Your task to perform on an android device: open wifi settings Image 0: 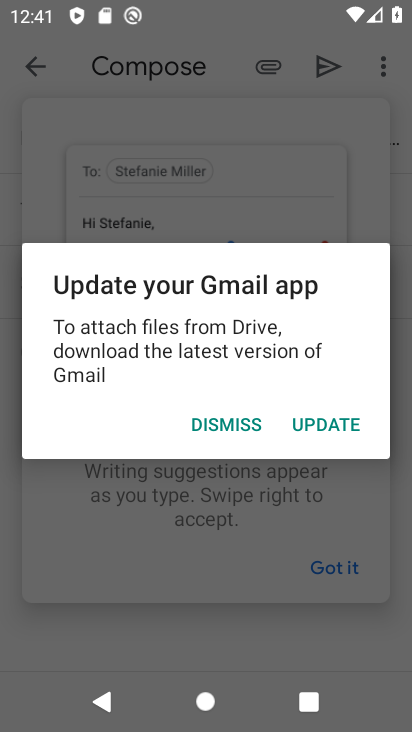
Step 0: press home button
Your task to perform on an android device: open wifi settings Image 1: 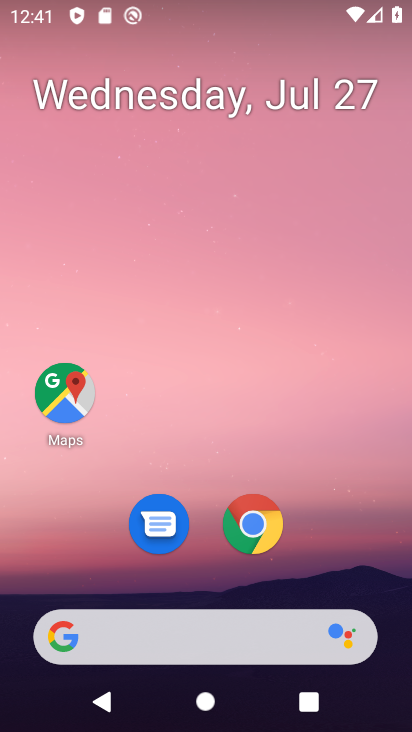
Step 1: drag from (336, 541) to (322, 147)
Your task to perform on an android device: open wifi settings Image 2: 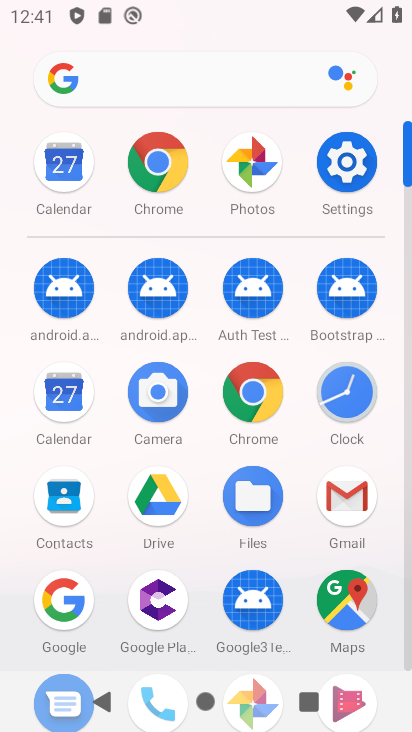
Step 2: click (349, 172)
Your task to perform on an android device: open wifi settings Image 3: 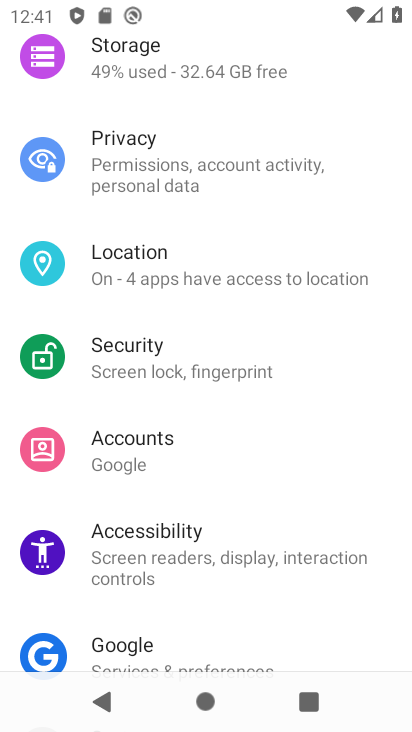
Step 3: drag from (281, 204) to (248, 546)
Your task to perform on an android device: open wifi settings Image 4: 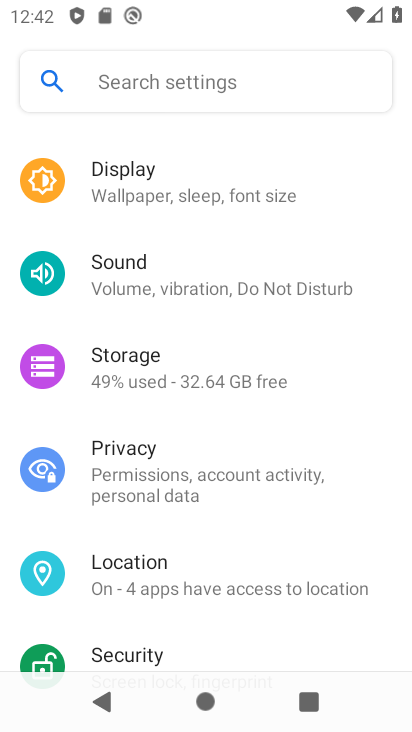
Step 4: drag from (173, 242) to (170, 554)
Your task to perform on an android device: open wifi settings Image 5: 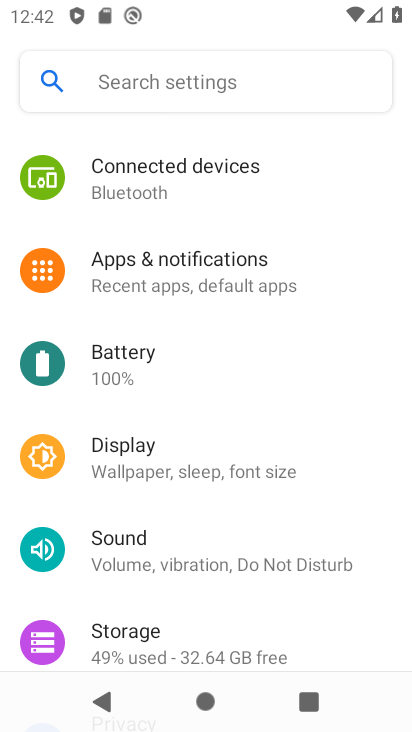
Step 5: drag from (185, 224) to (198, 629)
Your task to perform on an android device: open wifi settings Image 6: 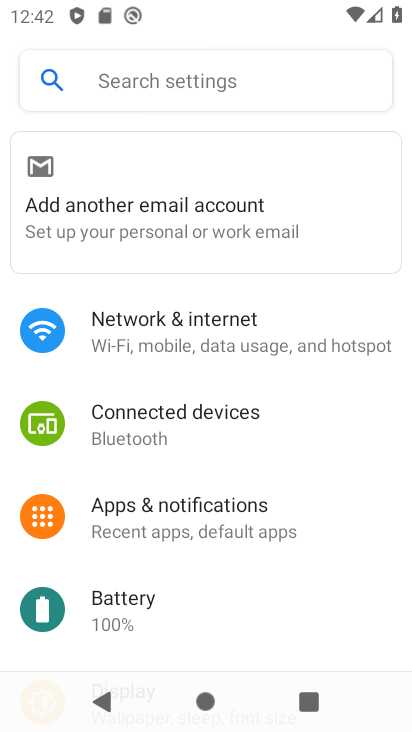
Step 6: click (204, 343)
Your task to perform on an android device: open wifi settings Image 7: 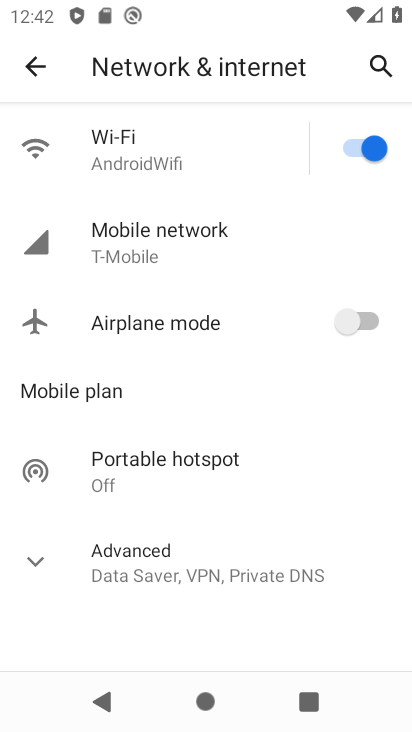
Step 7: click (170, 150)
Your task to perform on an android device: open wifi settings Image 8: 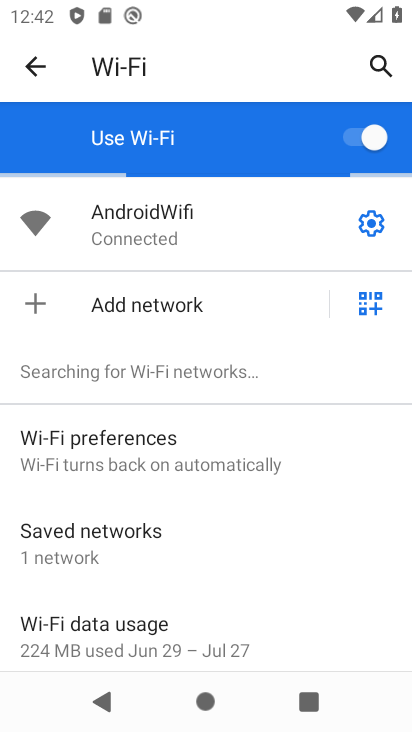
Step 8: task complete